Your task to perform on an android device: see tabs open on other devices in the chrome app Image 0: 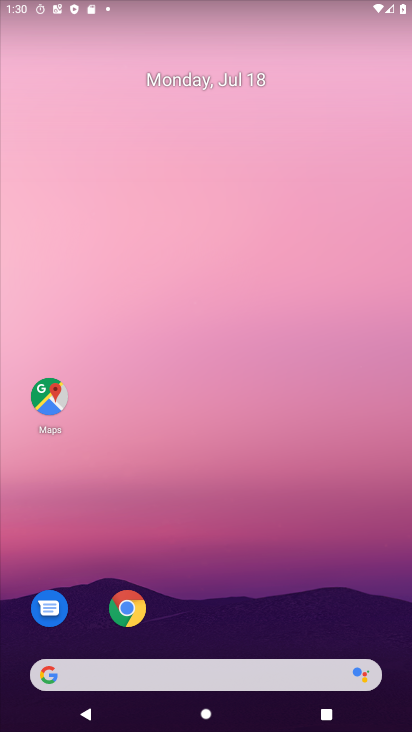
Step 0: click (127, 612)
Your task to perform on an android device: see tabs open on other devices in the chrome app Image 1: 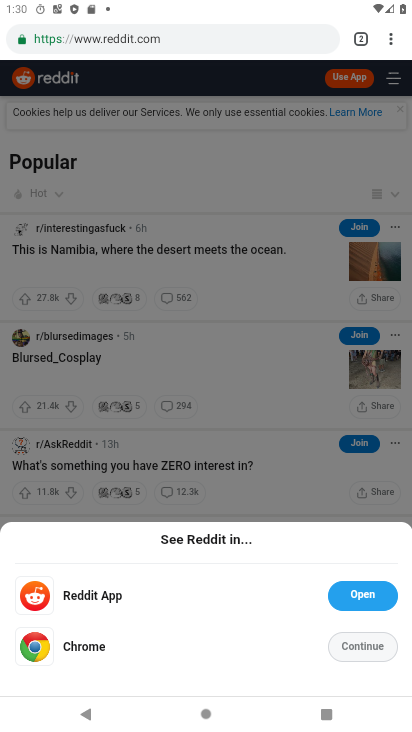
Step 1: click (391, 43)
Your task to perform on an android device: see tabs open on other devices in the chrome app Image 2: 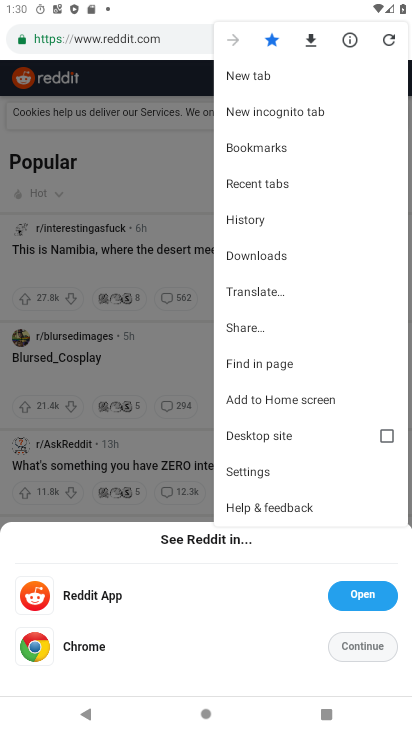
Step 2: click (247, 219)
Your task to perform on an android device: see tabs open on other devices in the chrome app Image 3: 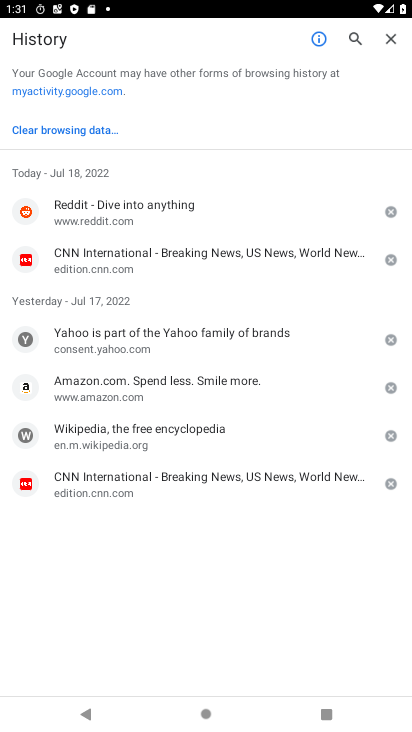
Step 3: task complete